Your task to perform on an android device: turn on javascript in the chrome app Image 0: 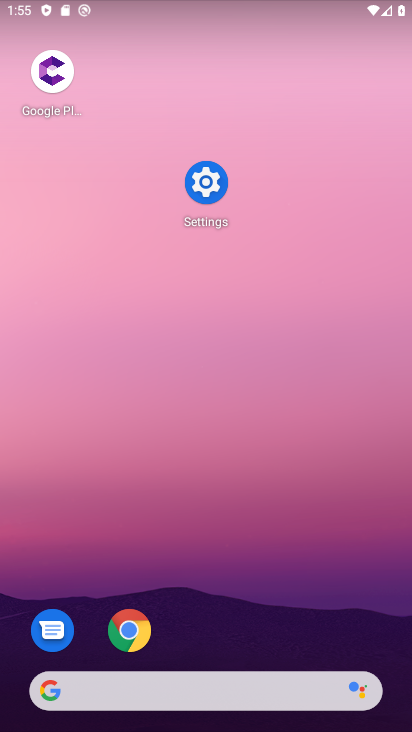
Step 0: click (134, 648)
Your task to perform on an android device: turn on javascript in the chrome app Image 1: 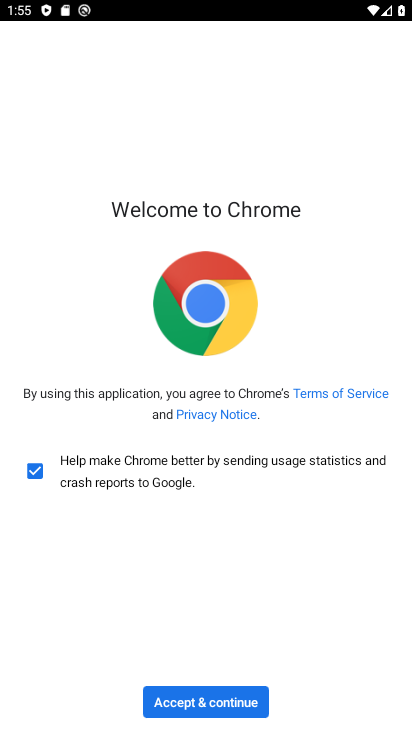
Step 1: click (239, 707)
Your task to perform on an android device: turn on javascript in the chrome app Image 2: 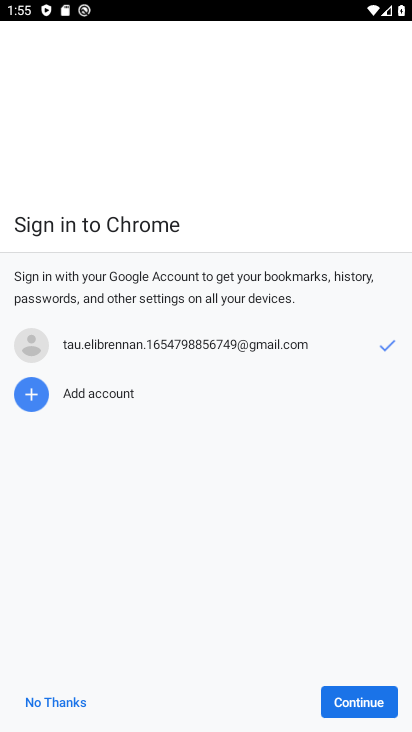
Step 2: click (358, 702)
Your task to perform on an android device: turn on javascript in the chrome app Image 3: 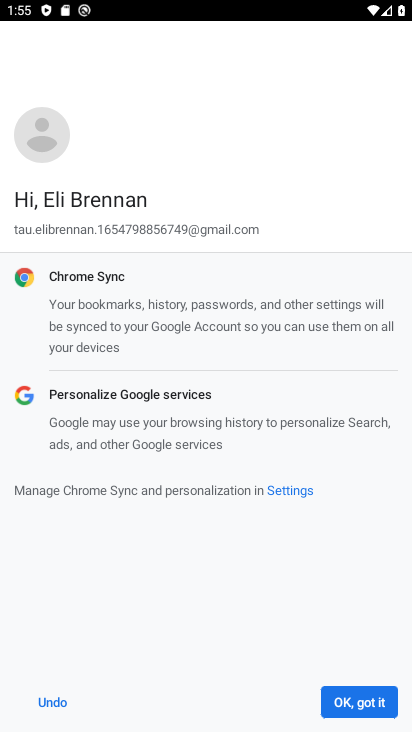
Step 3: click (346, 710)
Your task to perform on an android device: turn on javascript in the chrome app Image 4: 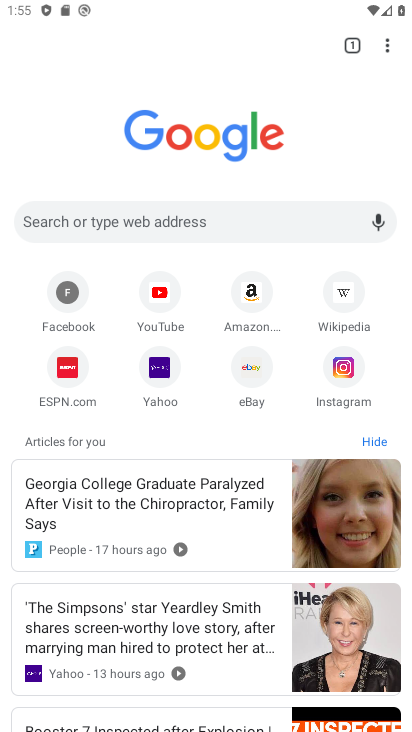
Step 4: click (386, 44)
Your task to perform on an android device: turn on javascript in the chrome app Image 5: 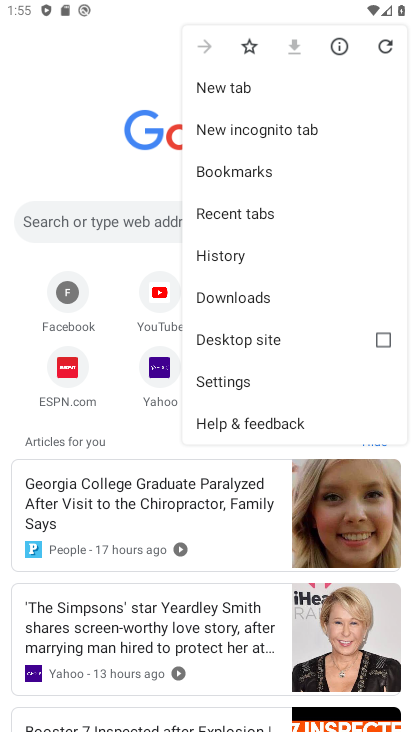
Step 5: click (240, 383)
Your task to perform on an android device: turn on javascript in the chrome app Image 6: 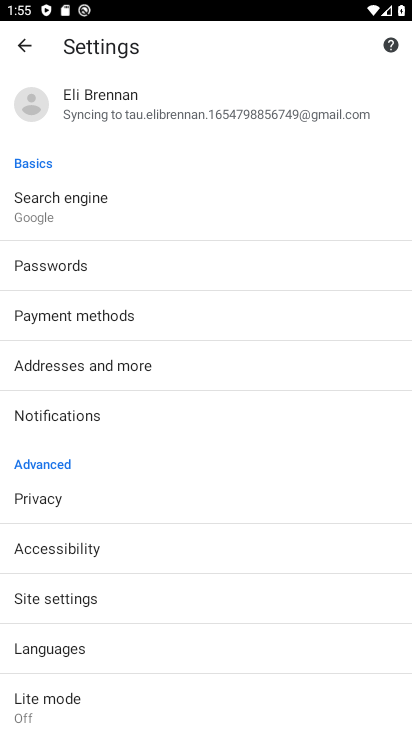
Step 6: click (201, 609)
Your task to perform on an android device: turn on javascript in the chrome app Image 7: 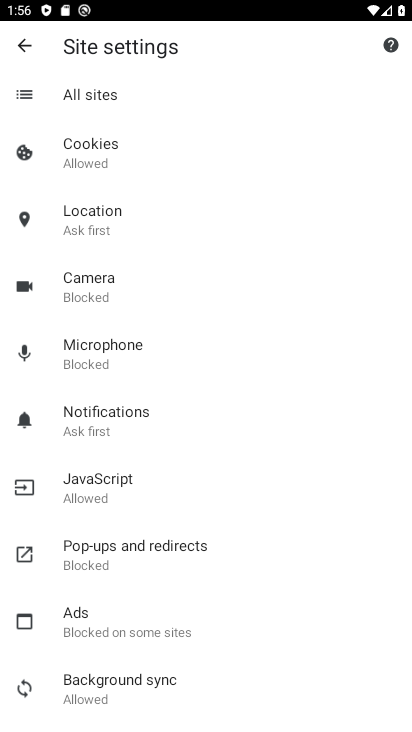
Step 7: click (185, 494)
Your task to perform on an android device: turn on javascript in the chrome app Image 8: 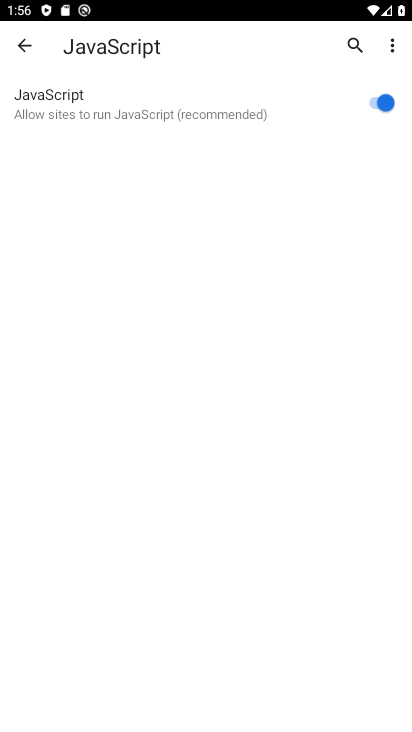
Step 8: task complete